Your task to perform on an android device: stop showing notifications on the lock screen Image 0: 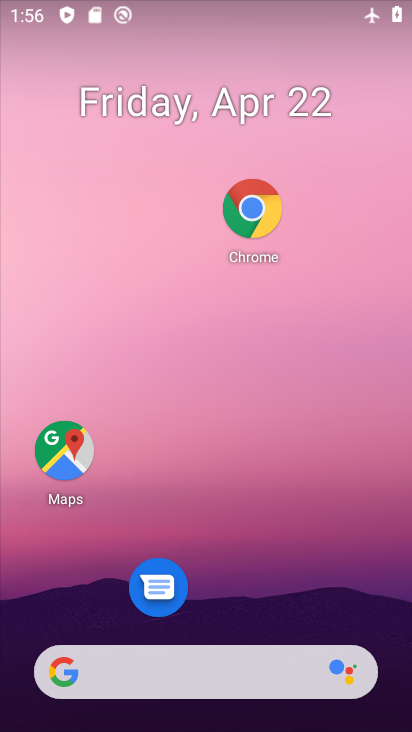
Step 0: drag from (247, 587) to (264, 161)
Your task to perform on an android device: stop showing notifications on the lock screen Image 1: 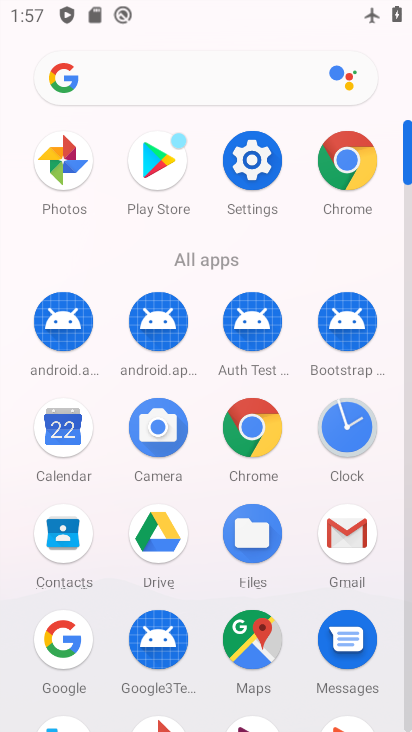
Step 1: click (265, 169)
Your task to perform on an android device: stop showing notifications on the lock screen Image 2: 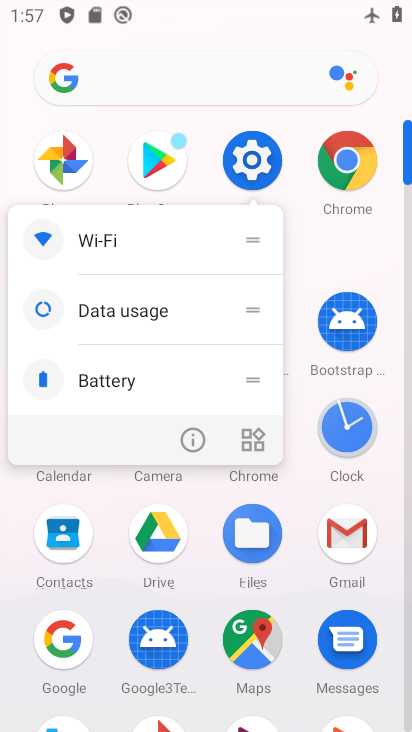
Step 2: click (188, 442)
Your task to perform on an android device: stop showing notifications on the lock screen Image 3: 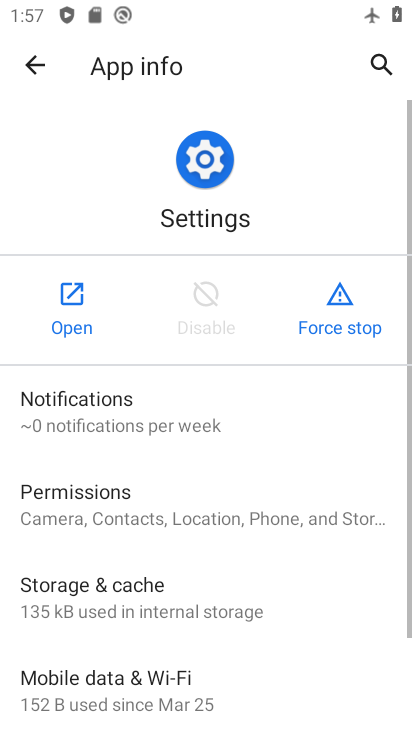
Step 3: click (87, 302)
Your task to perform on an android device: stop showing notifications on the lock screen Image 4: 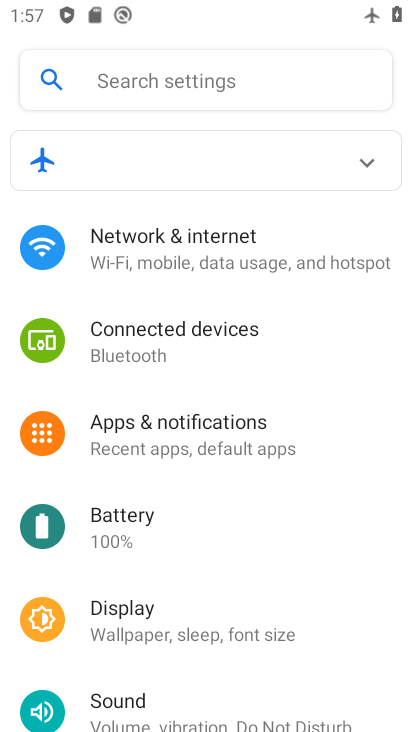
Step 4: click (202, 438)
Your task to perform on an android device: stop showing notifications on the lock screen Image 5: 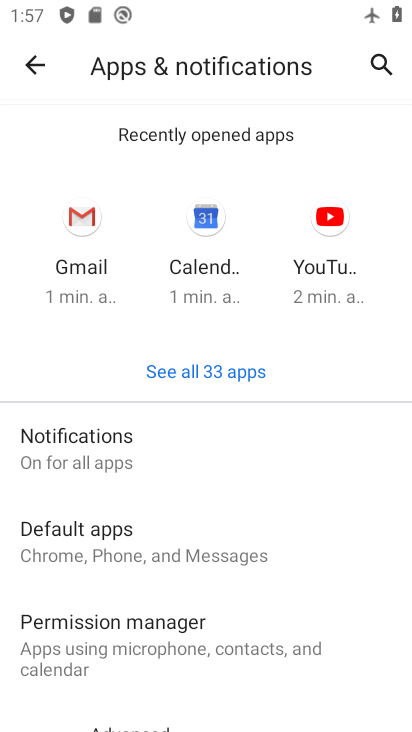
Step 5: click (154, 443)
Your task to perform on an android device: stop showing notifications on the lock screen Image 6: 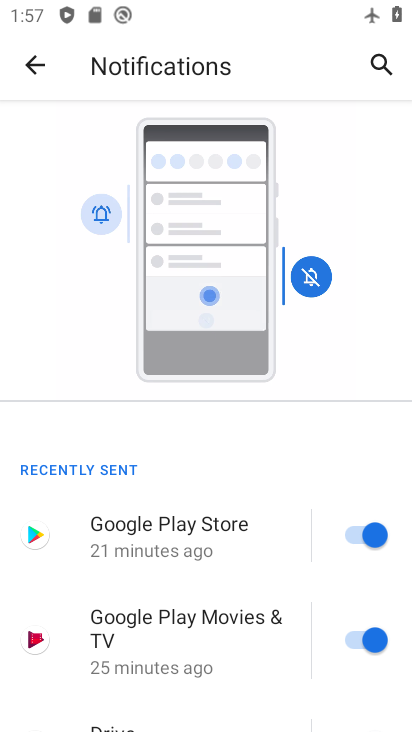
Step 6: drag from (246, 537) to (296, 221)
Your task to perform on an android device: stop showing notifications on the lock screen Image 7: 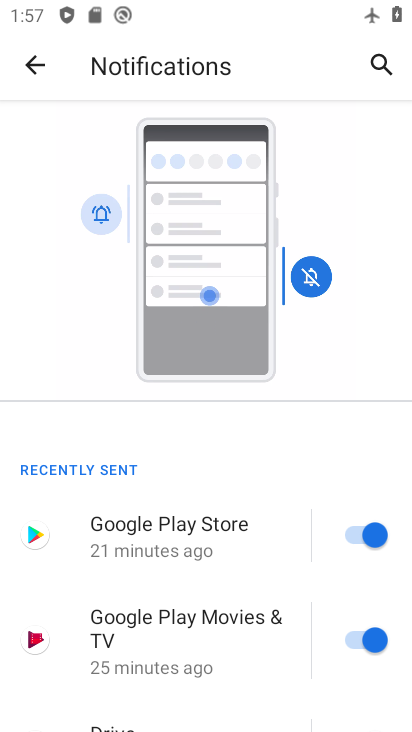
Step 7: drag from (244, 489) to (272, 267)
Your task to perform on an android device: stop showing notifications on the lock screen Image 8: 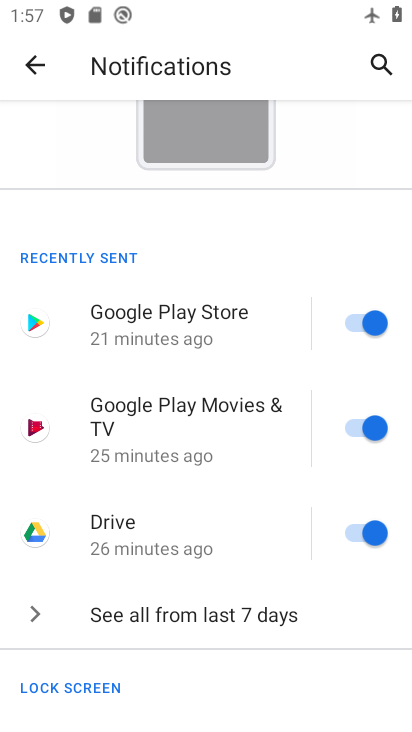
Step 8: drag from (218, 637) to (266, 330)
Your task to perform on an android device: stop showing notifications on the lock screen Image 9: 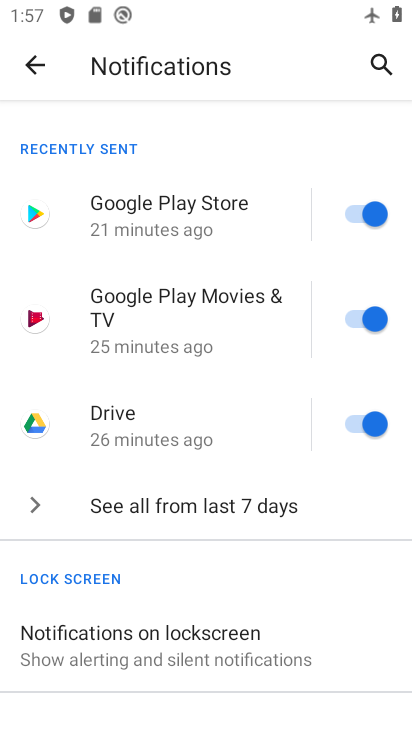
Step 9: drag from (160, 573) to (207, 176)
Your task to perform on an android device: stop showing notifications on the lock screen Image 10: 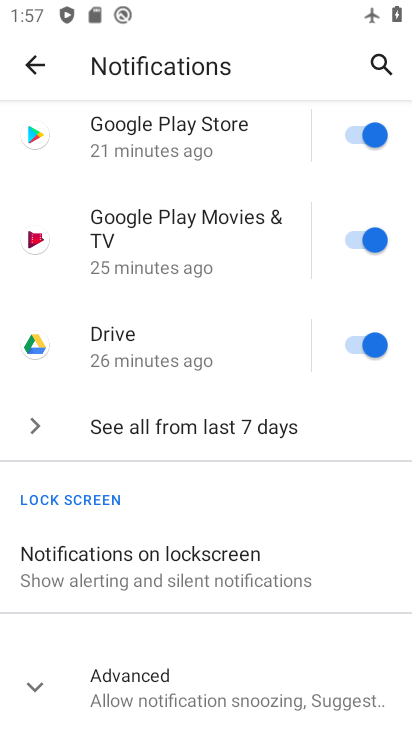
Step 10: click (194, 577)
Your task to perform on an android device: stop showing notifications on the lock screen Image 11: 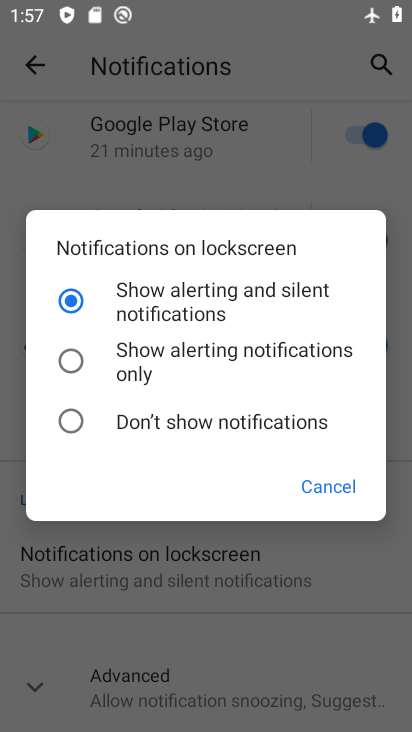
Step 11: click (143, 358)
Your task to perform on an android device: stop showing notifications on the lock screen Image 12: 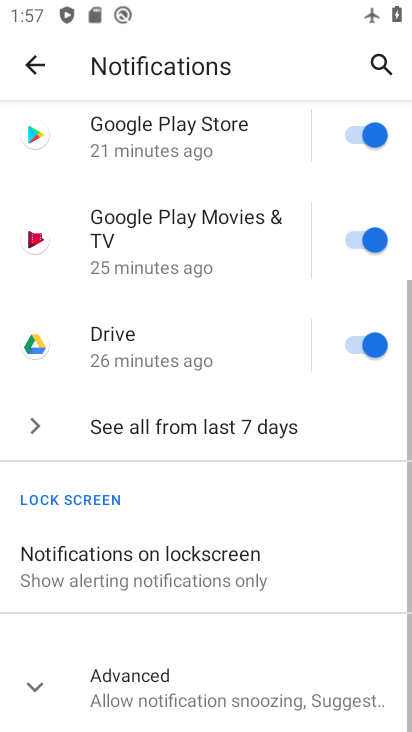
Step 12: task complete